Your task to perform on an android device: Do I have any events tomorrow? Image 0: 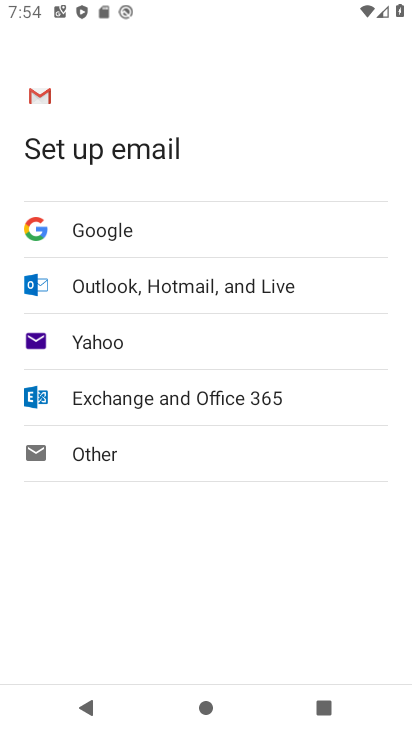
Step 0: press home button
Your task to perform on an android device: Do I have any events tomorrow? Image 1: 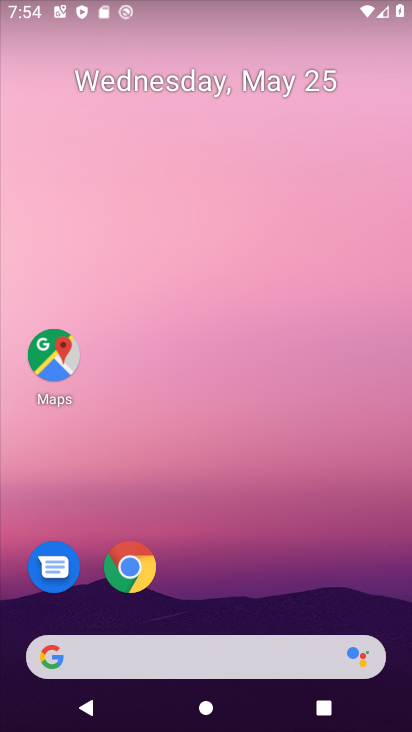
Step 1: drag from (309, 521) to (269, 179)
Your task to perform on an android device: Do I have any events tomorrow? Image 2: 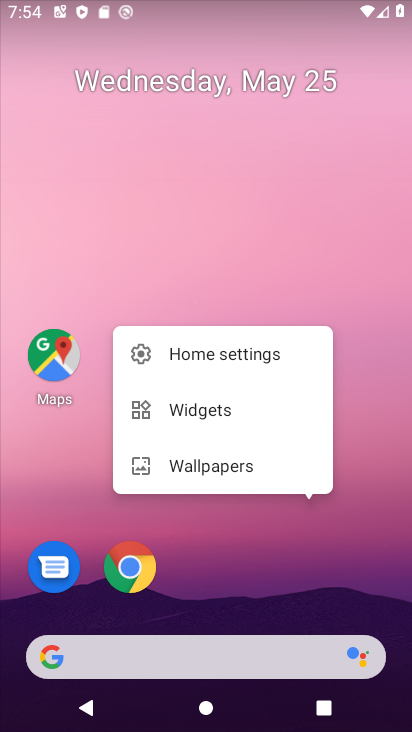
Step 2: click (269, 178)
Your task to perform on an android device: Do I have any events tomorrow? Image 3: 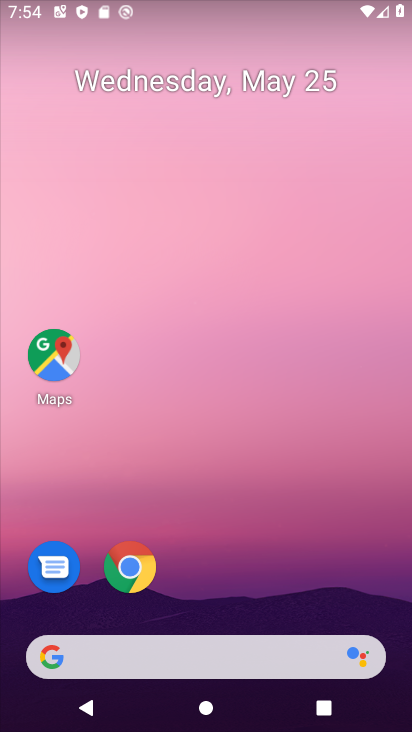
Step 3: click (269, 178)
Your task to perform on an android device: Do I have any events tomorrow? Image 4: 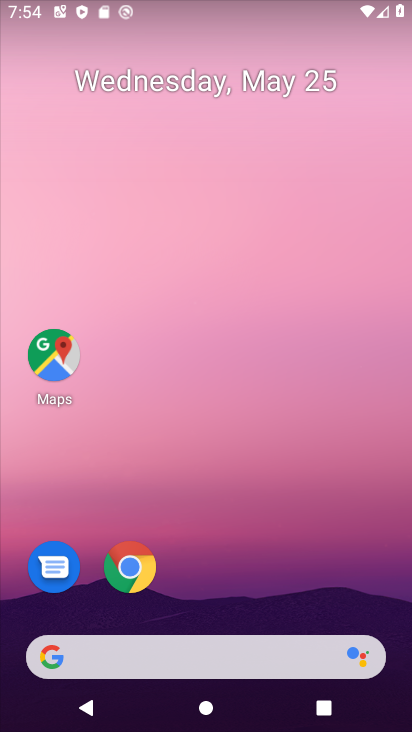
Step 4: drag from (288, 602) to (268, 196)
Your task to perform on an android device: Do I have any events tomorrow? Image 5: 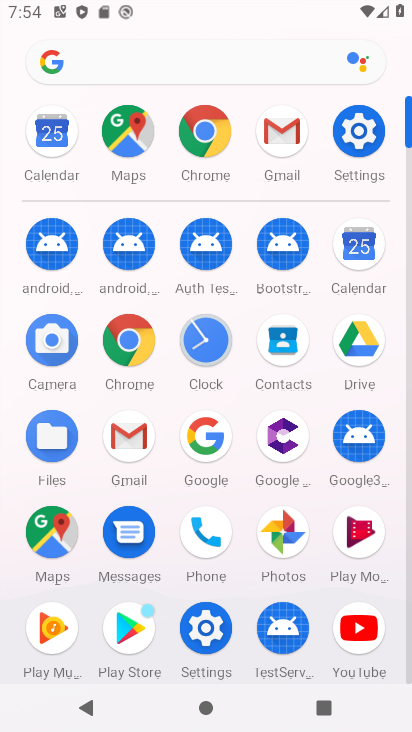
Step 5: click (351, 260)
Your task to perform on an android device: Do I have any events tomorrow? Image 6: 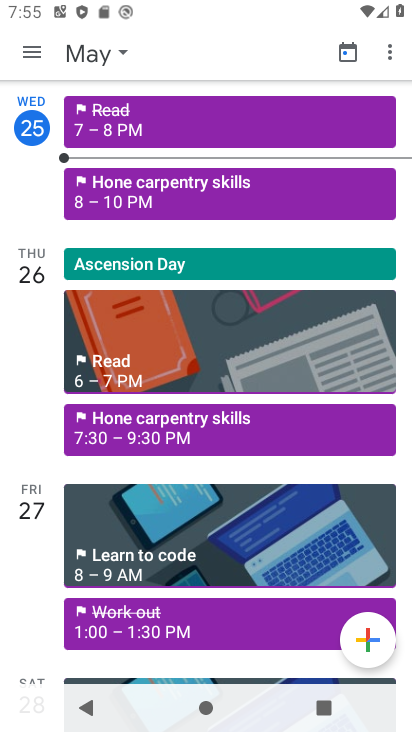
Step 6: task complete